Your task to perform on an android device: Search for bose soundlink mini on newegg, select the first entry, and add it to the cart. Image 0: 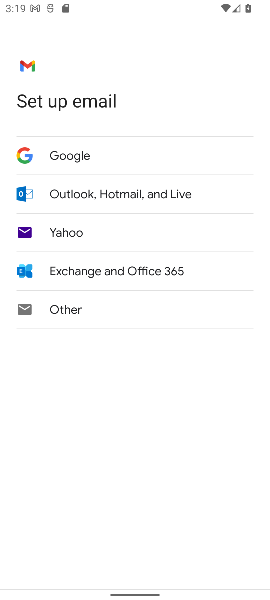
Step 0: press home button
Your task to perform on an android device: Search for bose soundlink mini on newegg, select the first entry, and add it to the cart. Image 1: 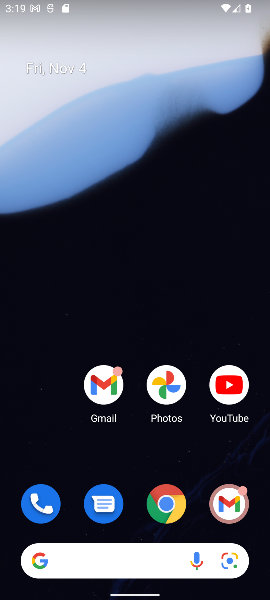
Step 1: click (167, 509)
Your task to perform on an android device: Search for bose soundlink mini on newegg, select the first entry, and add it to the cart. Image 2: 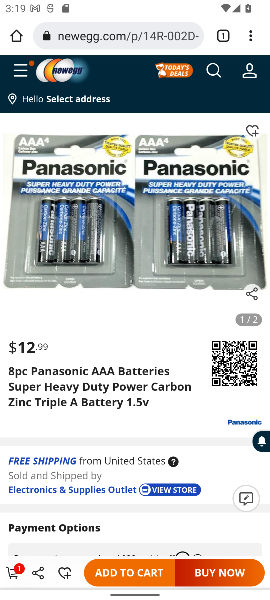
Step 2: click (210, 74)
Your task to perform on an android device: Search for bose soundlink mini on newegg, select the first entry, and add it to the cart. Image 3: 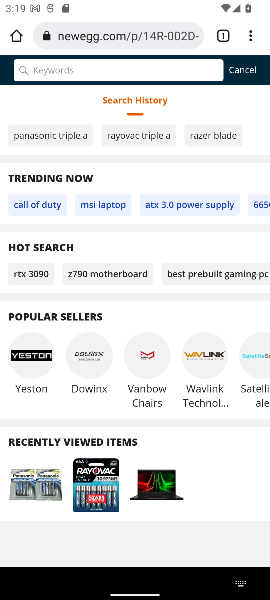
Step 3: type "bose soundlink mini "
Your task to perform on an android device: Search for bose soundlink mini on newegg, select the first entry, and add it to the cart. Image 4: 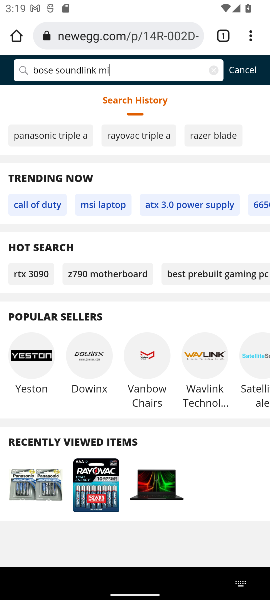
Step 4: type ""
Your task to perform on an android device: Search for bose soundlink mini on newegg, select the first entry, and add it to the cart. Image 5: 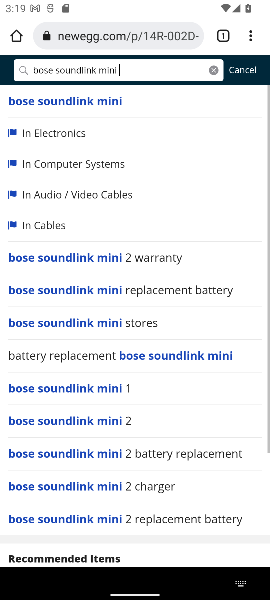
Step 5: click (99, 100)
Your task to perform on an android device: Search for bose soundlink mini on newegg, select the first entry, and add it to the cart. Image 6: 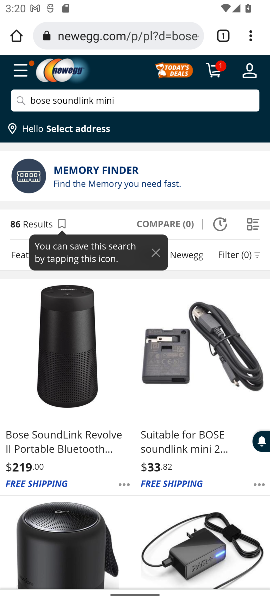
Step 6: task complete